Your task to perform on an android device: Go to internet settings Image 0: 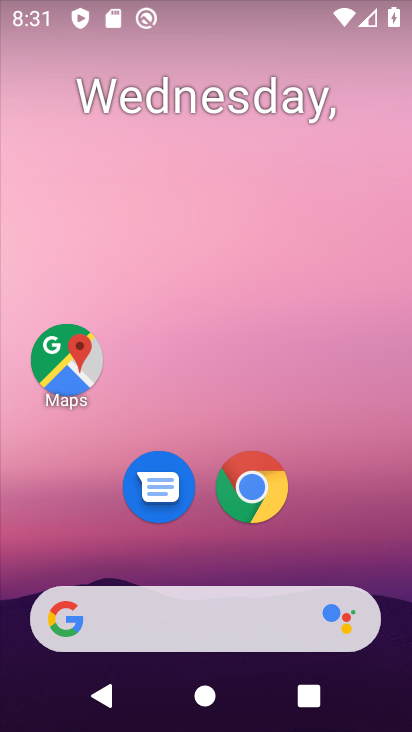
Step 0: drag from (86, 582) to (234, 34)
Your task to perform on an android device: Go to internet settings Image 1: 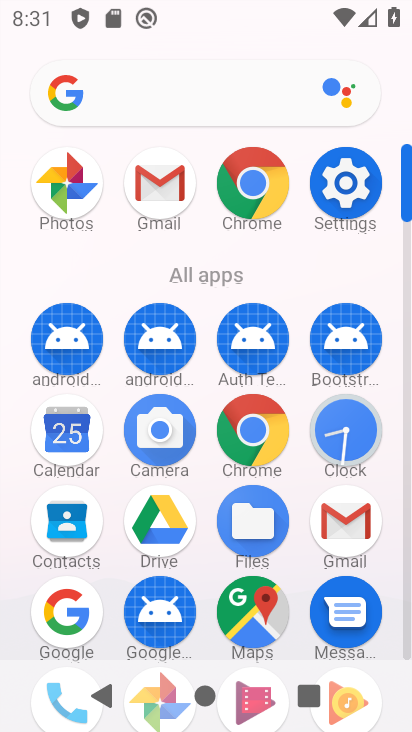
Step 1: drag from (167, 592) to (262, 207)
Your task to perform on an android device: Go to internet settings Image 2: 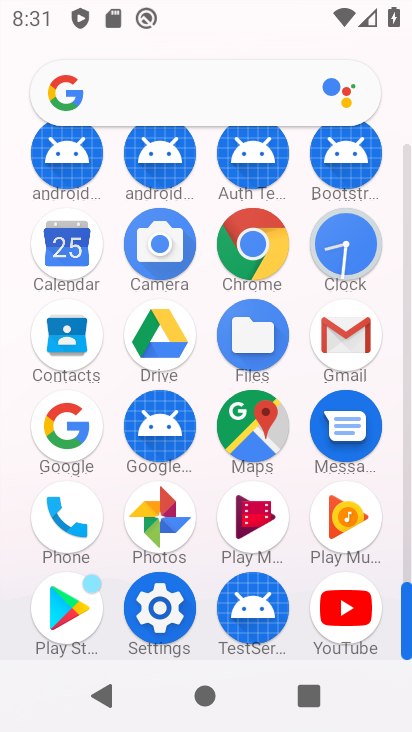
Step 2: click (153, 600)
Your task to perform on an android device: Go to internet settings Image 3: 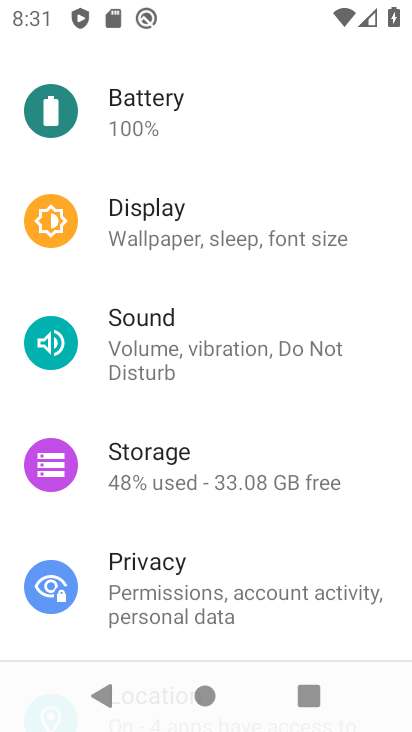
Step 3: drag from (218, 173) to (185, 535)
Your task to perform on an android device: Go to internet settings Image 4: 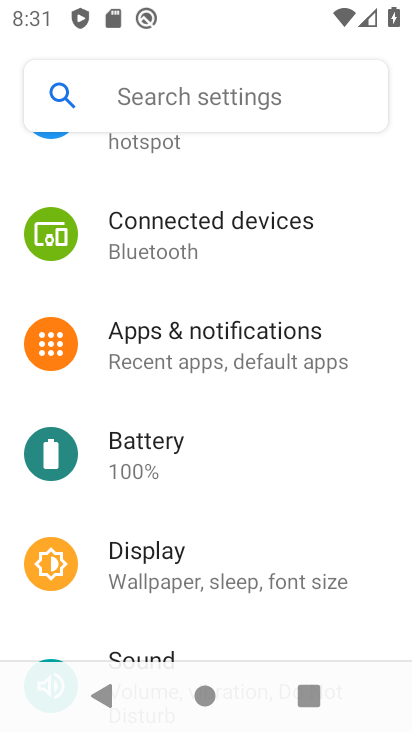
Step 4: drag from (235, 195) to (208, 509)
Your task to perform on an android device: Go to internet settings Image 5: 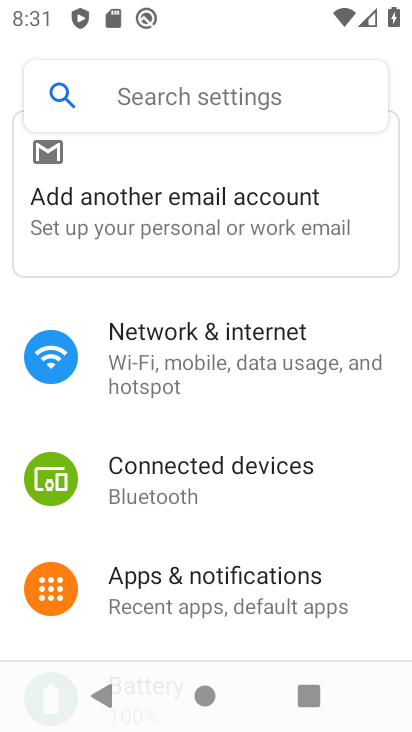
Step 5: click (210, 382)
Your task to perform on an android device: Go to internet settings Image 6: 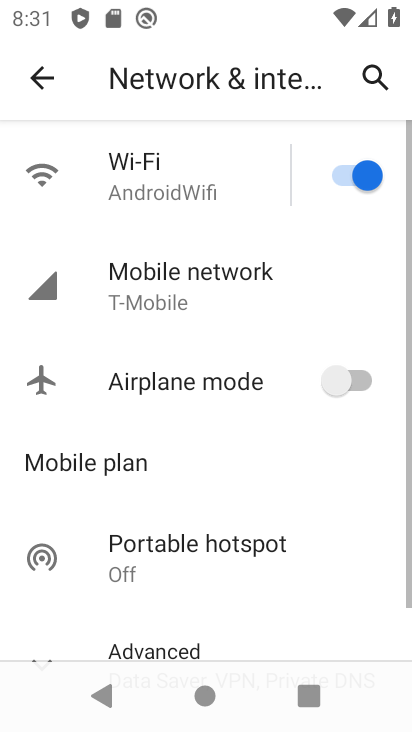
Step 6: click (212, 286)
Your task to perform on an android device: Go to internet settings Image 7: 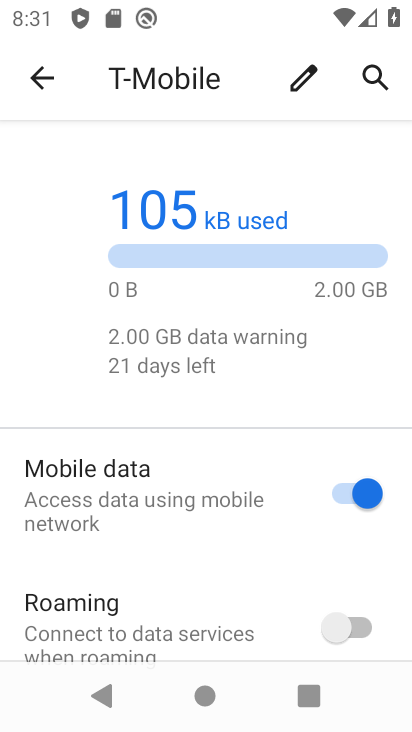
Step 7: task complete